Your task to perform on an android device: allow cookies in the chrome app Image 0: 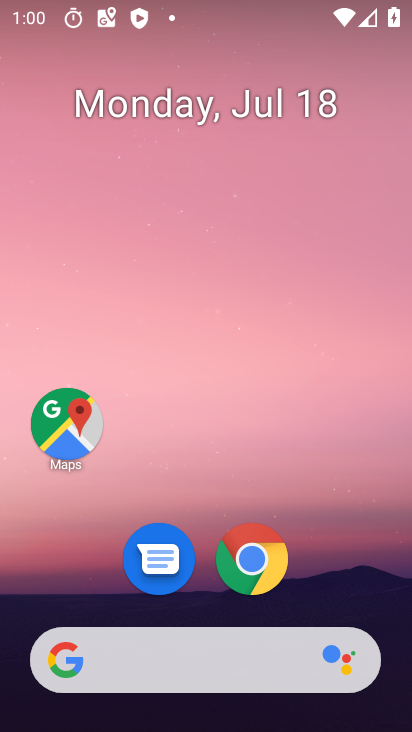
Step 0: click (266, 554)
Your task to perform on an android device: allow cookies in the chrome app Image 1: 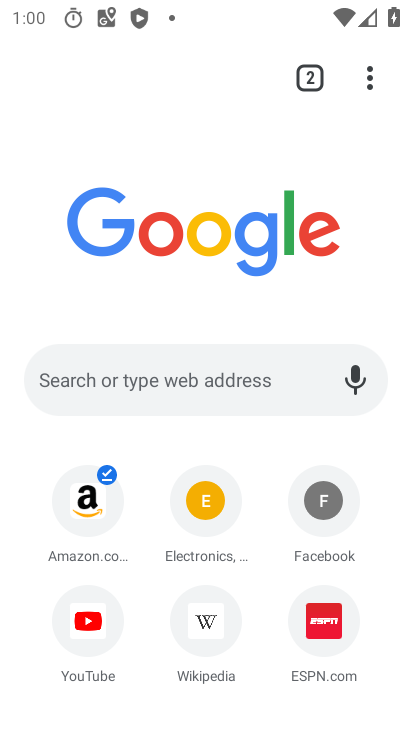
Step 1: drag from (366, 81) to (62, 642)
Your task to perform on an android device: allow cookies in the chrome app Image 2: 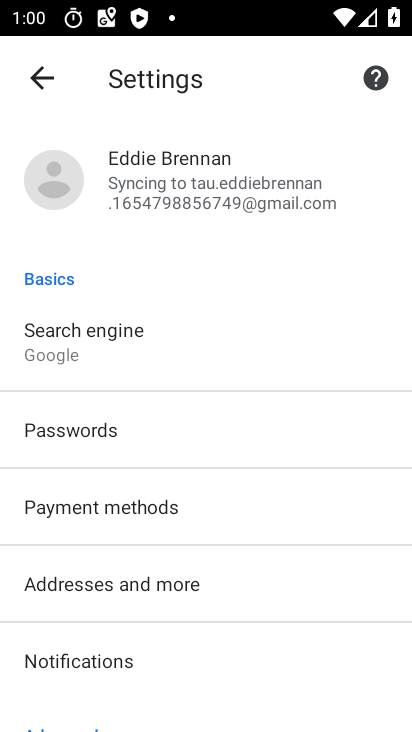
Step 2: drag from (65, 627) to (173, 175)
Your task to perform on an android device: allow cookies in the chrome app Image 3: 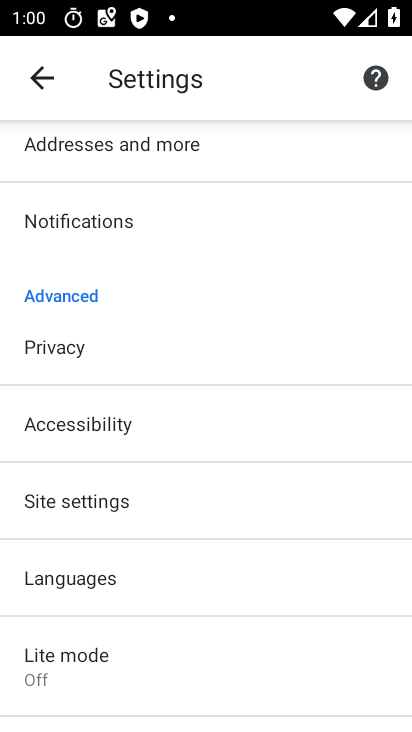
Step 3: click (63, 508)
Your task to perform on an android device: allow cookies in the chrome app Image 4: 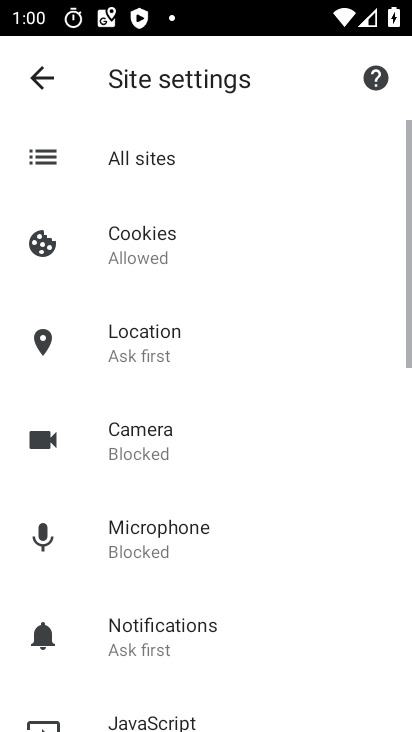
Step 4: click (176, 243)
Your task to perform on an android device: allow cookies in the chrome app Image 5: 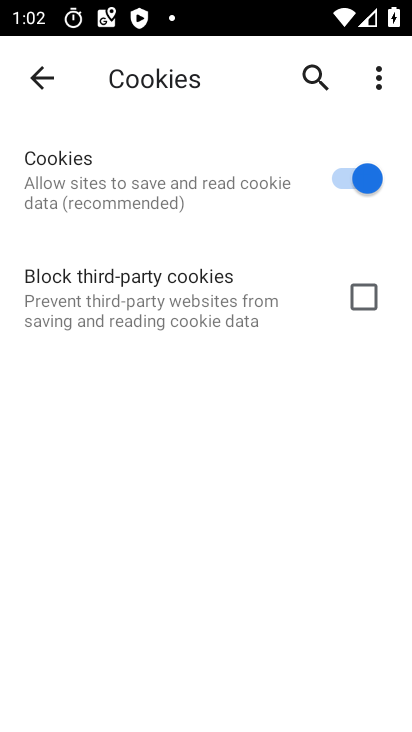
Step 5: task complete